Your task to perform on an android device: Do I have any events today? Image 0: 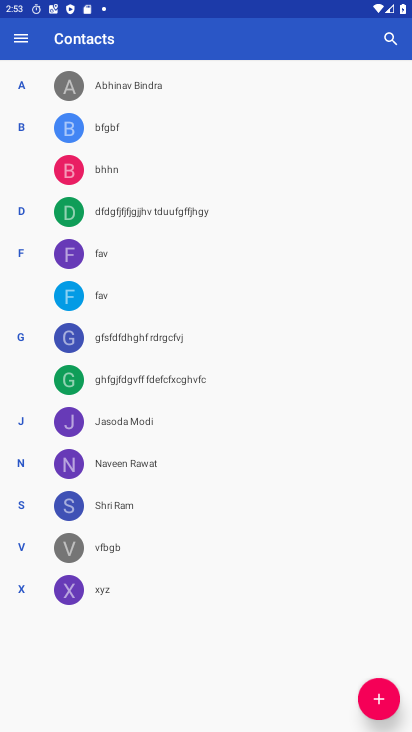
Step 0: press home button
Your task to perform on an android device: Do I have any events today? Image 1: 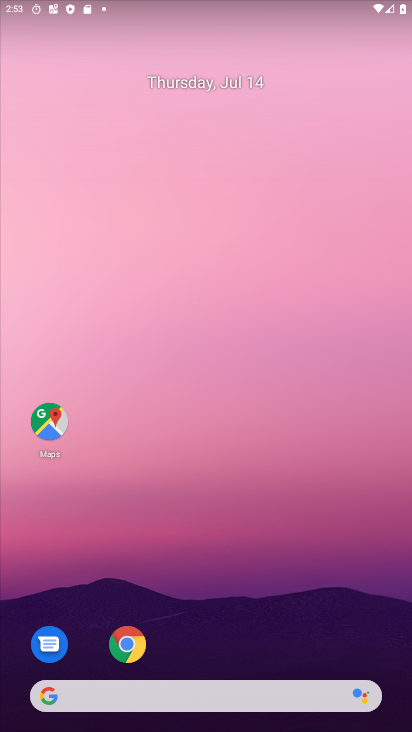
Step 1: drag from (21, 707) to (194, 271)
Your task to perform on an android device: Do I have any events today? Image 2: 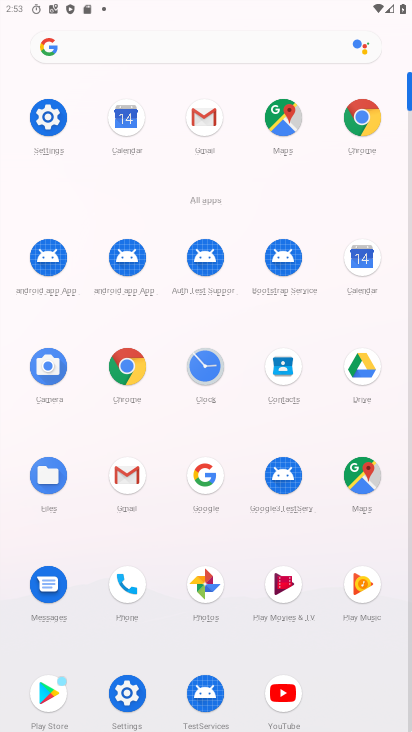
Step 2: click (356, 280)
Your task to perform on an android device: Do I have any events today? Image 3: 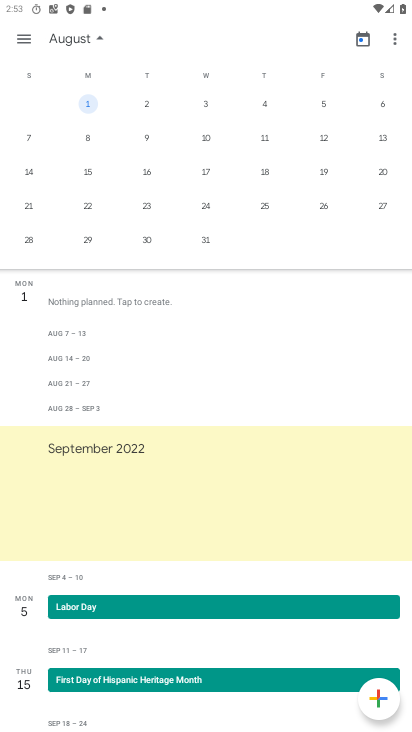
Step 3: drag from (49, 136) to (386, 159)
Your task to perform on an android device: Do I have any events today? Image 4: 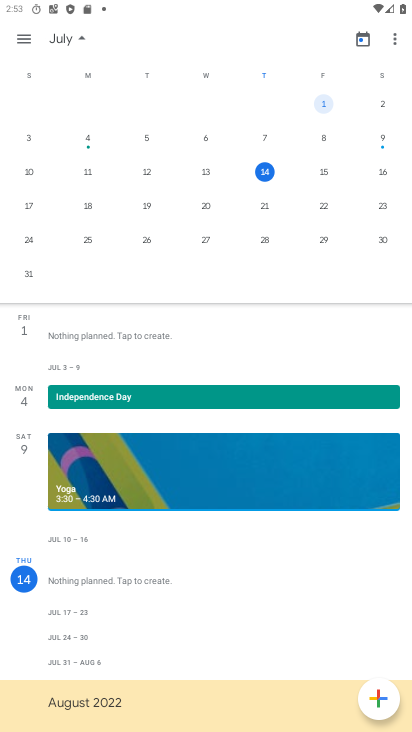
Step 4: click (20, 49)
Your task to perform on an android device: Do I have any events today? Image 5: 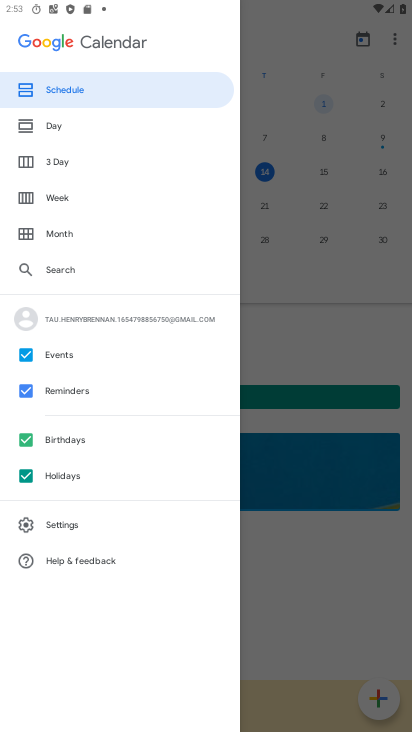
Step 5: task complete